Your task to perform on an android device: Turn on the flashlight Image 0: 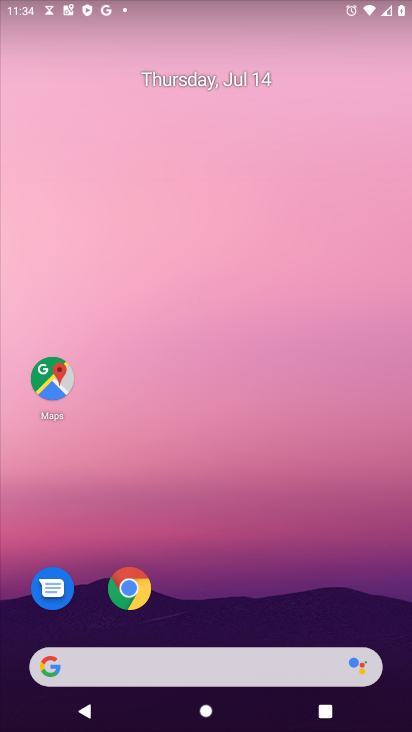
Step 0: press home button
Your task to perform on an android device: Turn on the flashlight Image 1: 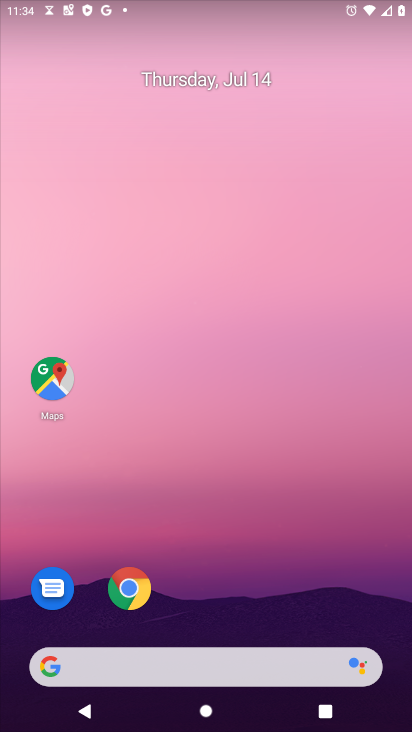
Step 1: task complete